Your task to perform on an android device: change the clock style Image 0: 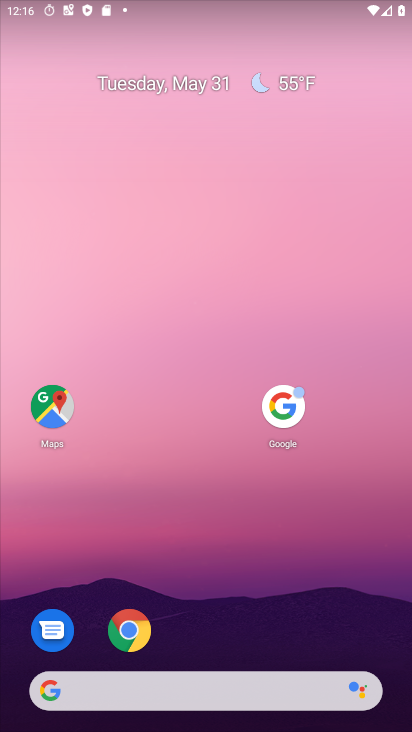
Step 0: drag from (241, 650) to (361, 111)
Your task to perform on an android device: change the clock style Image 1: 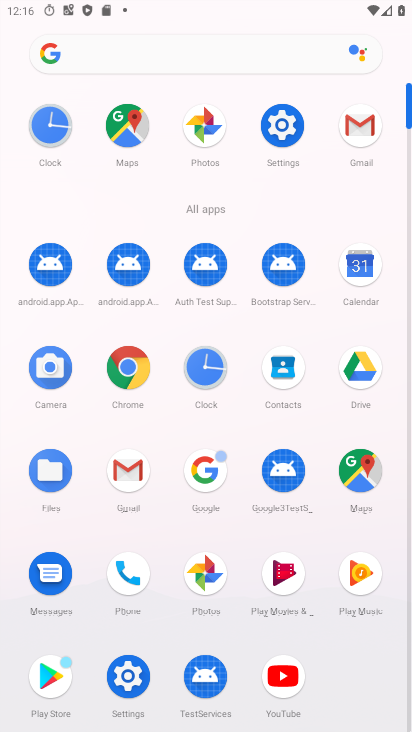
Step 1: click (203, 374)
Your task to perform on an android device: change the clock style Image 2: 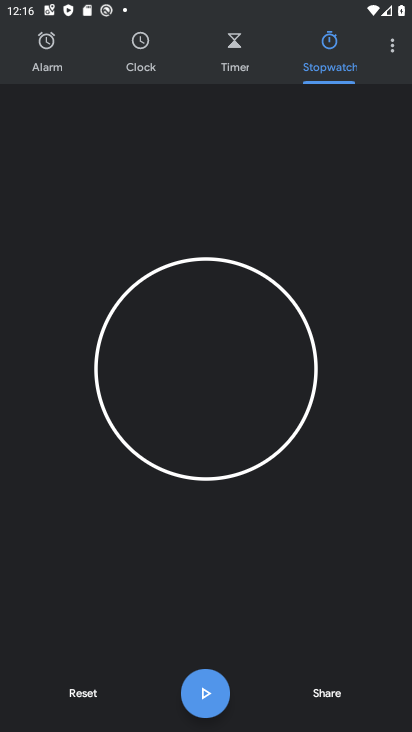
Step 2: click (392, 40)
Your task to perform on an android device: change the clock style Image 3: 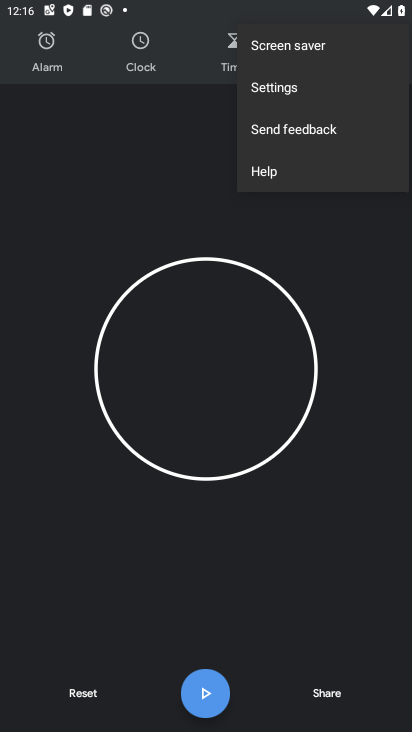
Step 3: click (315, 86)
Your task to perform on an android device: change the clock style Image 4: 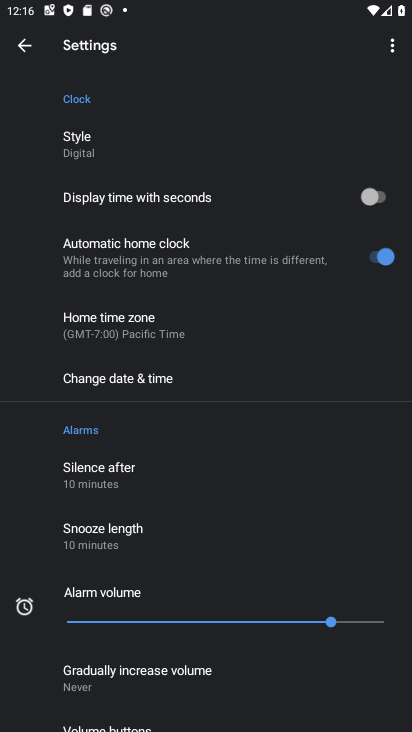
Step 4: click (91, 142)
Your task to perform on an android device: change the clock style Image 5: 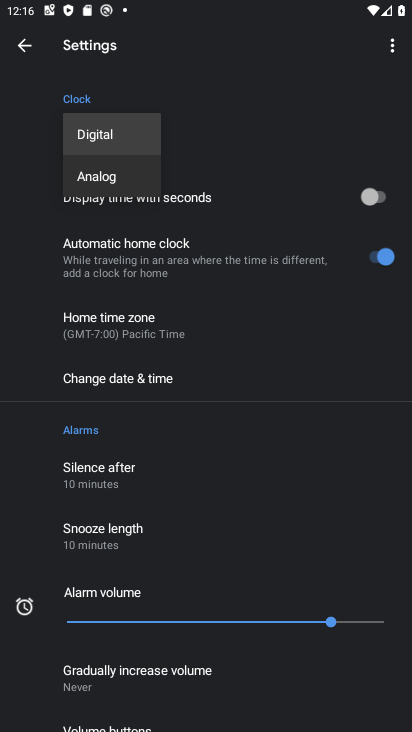
Step 5: click (81, 181)
Your task to perform on an android device: change the clock style Image 6: 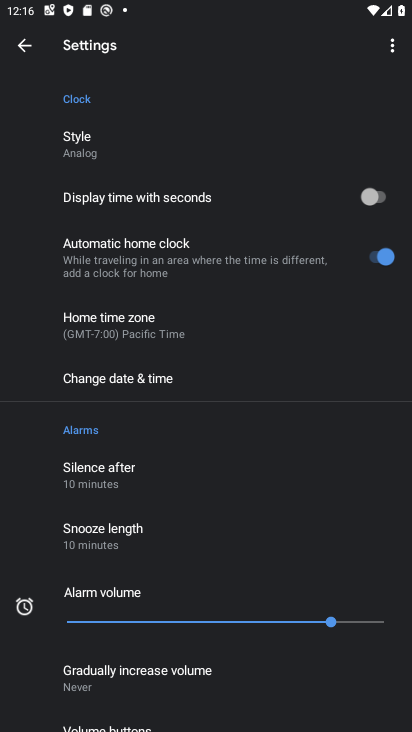
Step 6: task complete